Your task to perform on an android device: turn off sleep mode Image 0: 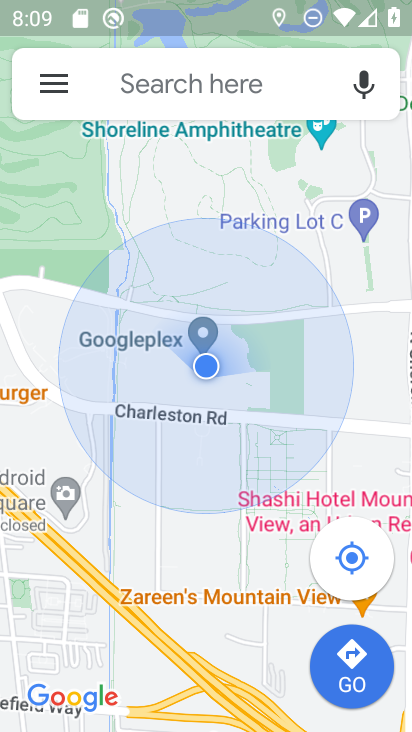
Step 0: press home button
Your task to perform on an android device: turn off sleep mode Image 1: 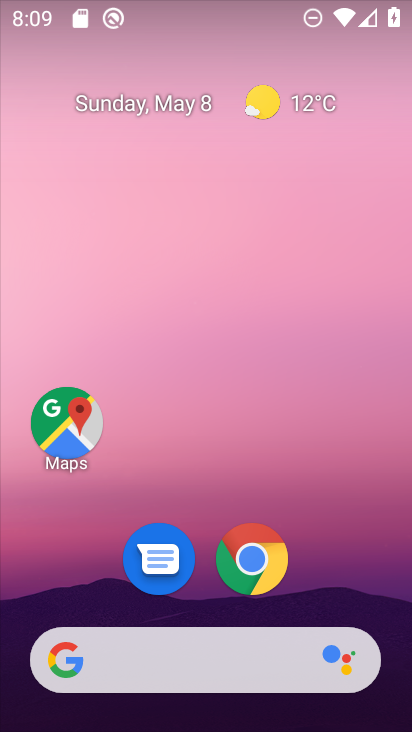
Step 1: drag from (346, 587) to (293, 13)
Your task to perform on an android device: turn off sleep mode Image 2: 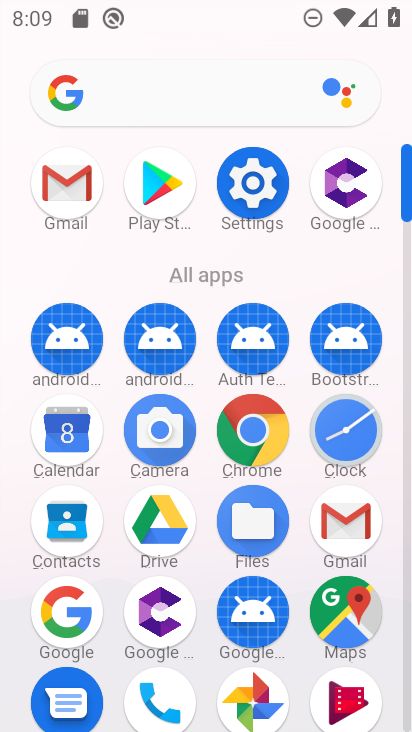
Step 2: click (254, 191)
Your task to perform on an android device: turn off sleep mode Image 3: 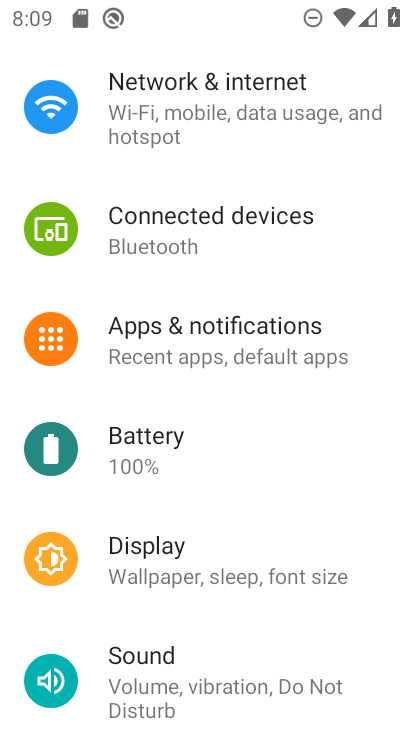
Step 3: click (126, 566)
Your task to perform on an android device: turn off sleep mode Image 4: 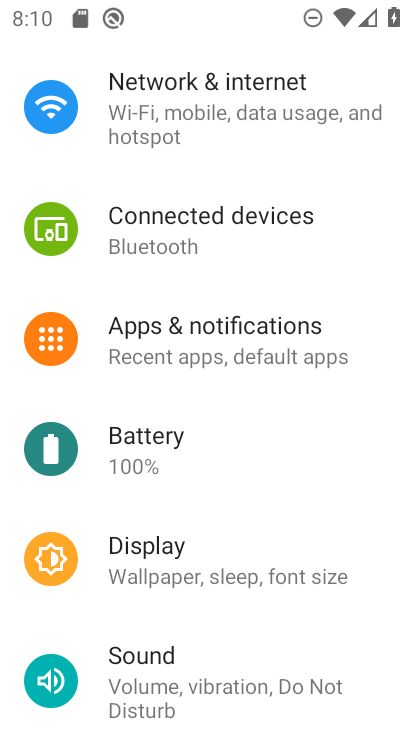
Step 4: click (113, 565)
Your task to perform on an android device: turn off sleep mode Image 5: 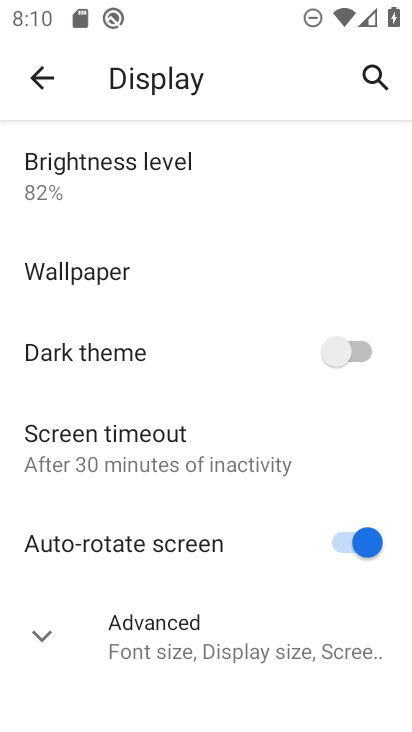
Step 5: click (41, 641)
Your task to perform on an android device: turn off sleep mode Image 6: 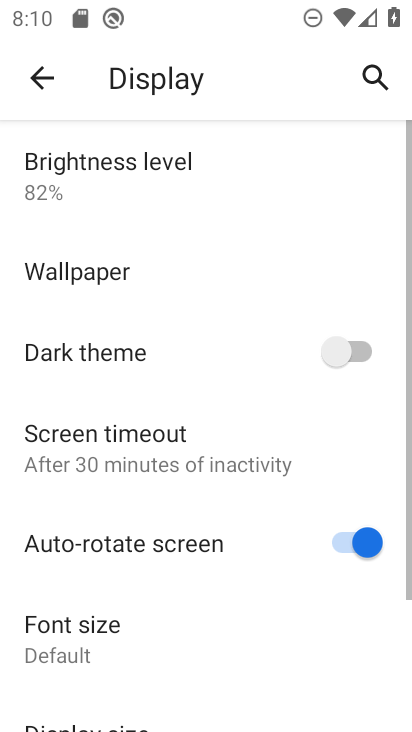
Step 6: task complete